Your task to perform on an android device: toggle notifications settings in the gmail app Image 0: 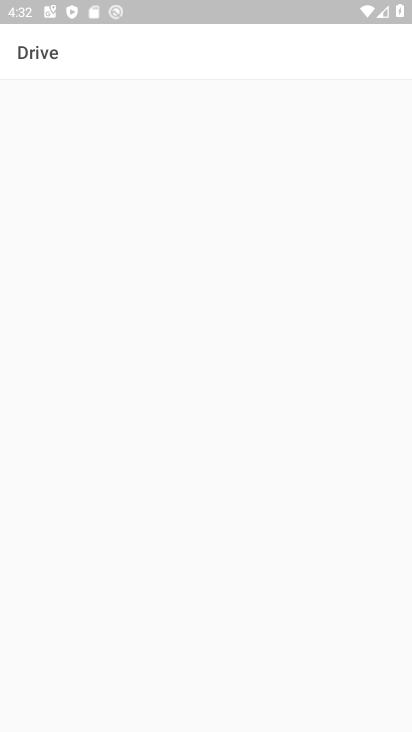
Step 0: press home button
Your task to perform on an android device: toggle notifications settings in the gmail app Image 1: 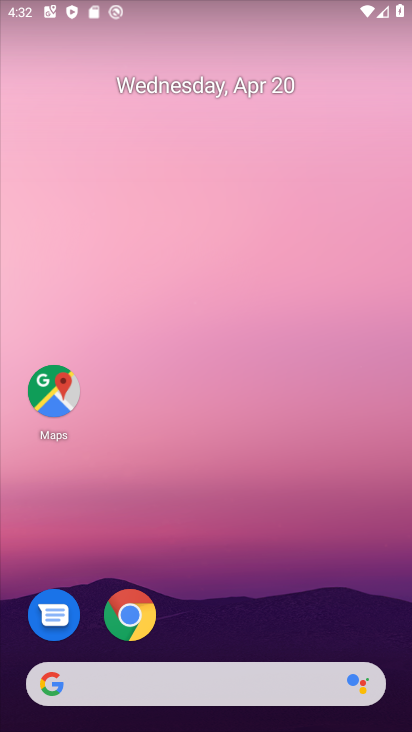
Step 1: drag from (211, 570) to (349, 19)
Your task to perform on an android device: toggle notifications settings in the gmail app Image 2: 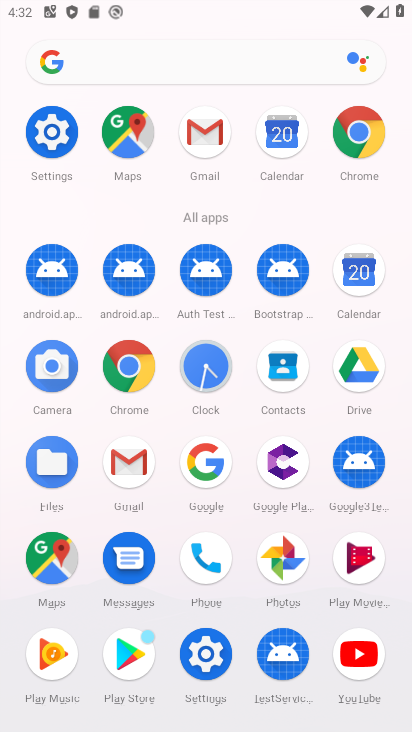
Step 2: click (120, 463)
Your task to perform on an android device: toggle notifications settings in the gmail app Image 3: 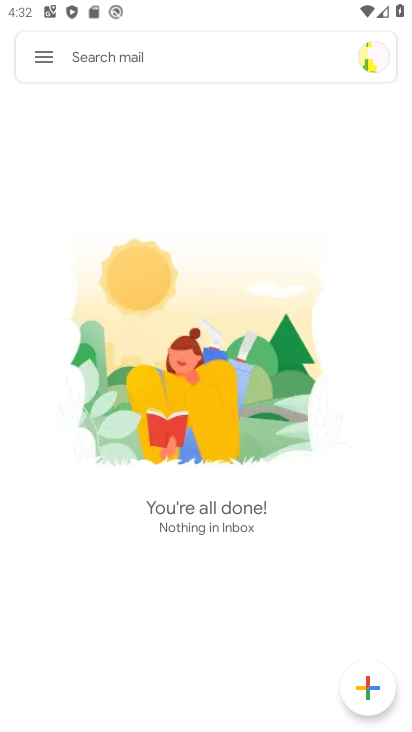
Step 3: click (49, 53)
Your task to perform on an android device: toggle notifications settings in the gmail app Image 4: 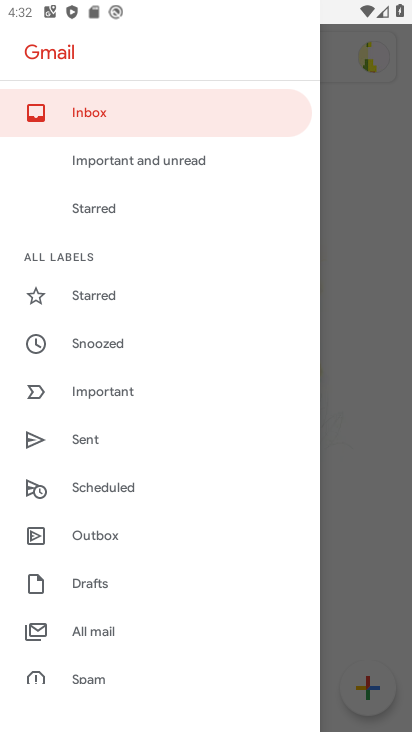
Step 4: drag from (105, 623) to (181, 300)
Your task to perform on an android device: toggle notifications settings in the gmail app Image 5: 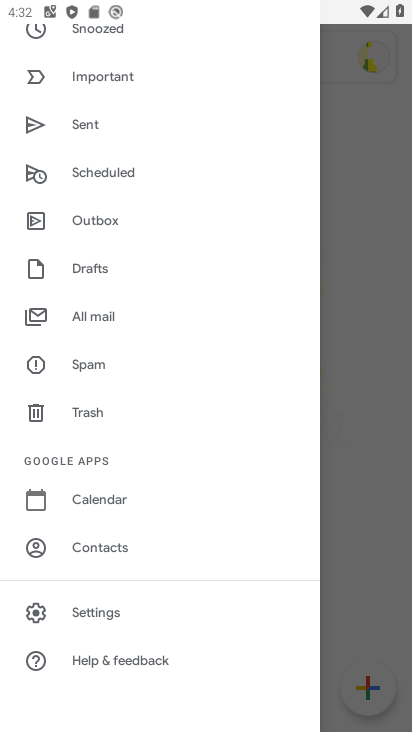
Step 5: drag from (102, 618) to (122, 464)
Your task to perform on an android device: toggle notifications settings in the gmail app Image 6: 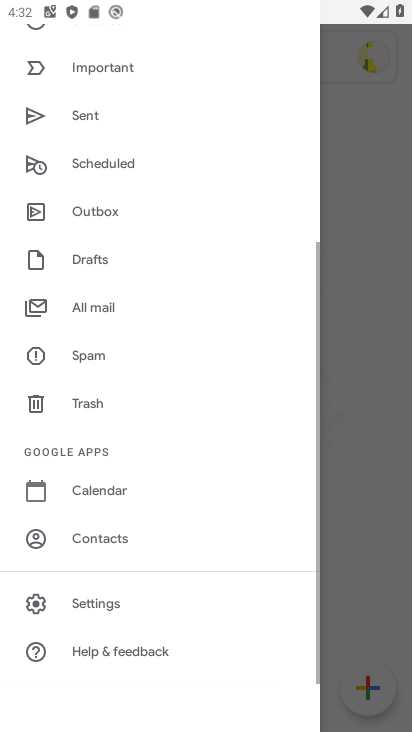
Step 6: click (86, 602)
Your task to perform on an android device: toggle notifications settings in the gmail app Image 7: 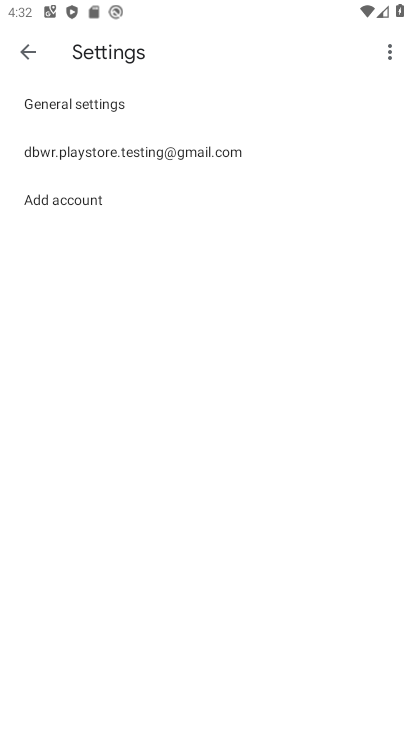
Step 7: click (102, 108)
Your task to perform on an android device: toggle notifications settings in the gmail app Image 8: 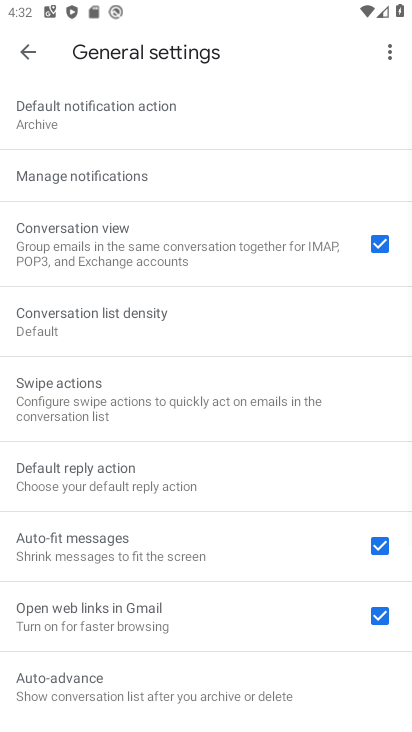
Step 8: click (104, 183)
Your task to perform on an android device: toggle notifications settings in the gmail app Image 9: 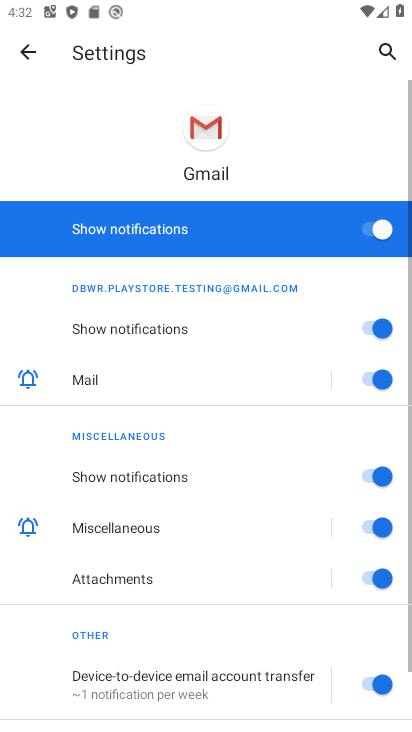
Step 9: click (367, 229)
Your task to perform on an android device: toggle notifications settings in the gmail app Image 10: 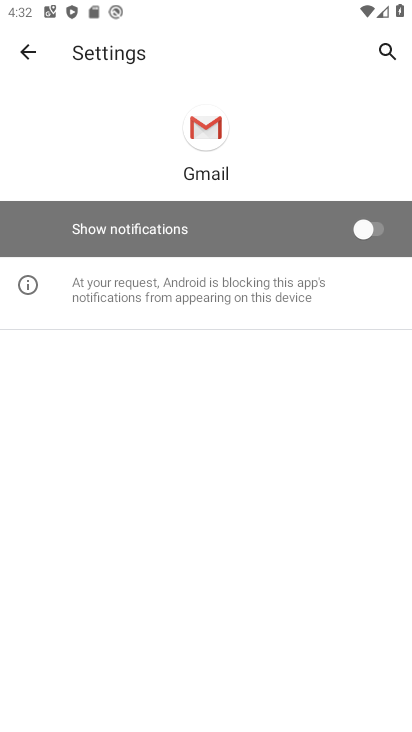
Step 10: task complete